Your task to perform on an android device: Do I have any events this weekend? Image 0: 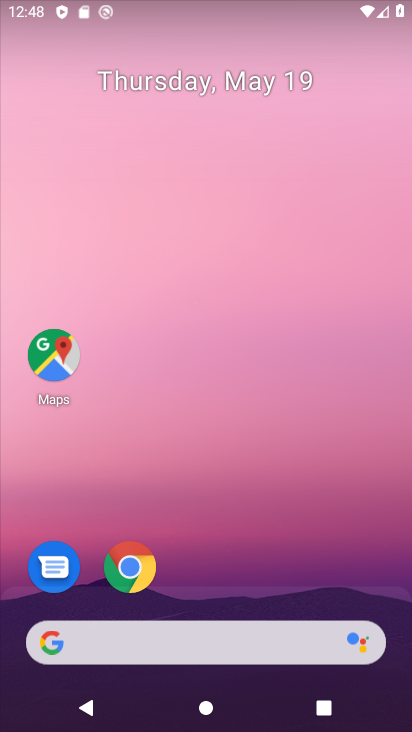
Step 0: press home button
Your task to perform on an android device: Do I have any events this weekend? Image 1: 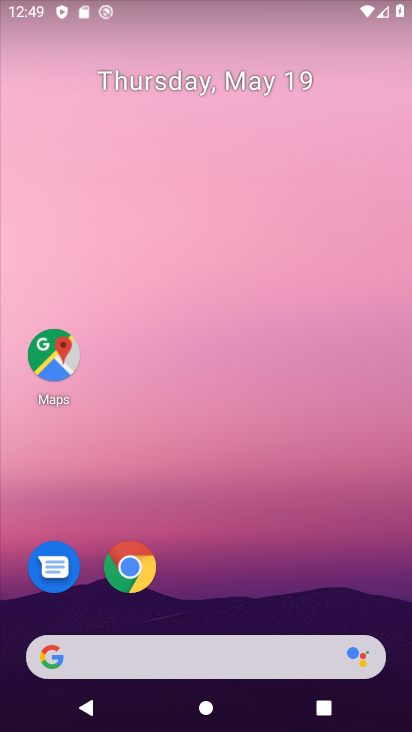
Step 1: drag from (191, 645) to (258, 279)
Your task to perform on an android device: Do I have any events this weekend? Image 2: 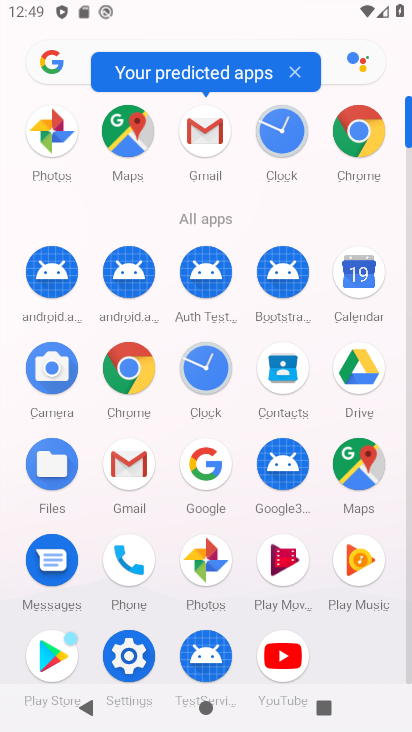
Step 2: click (363, 267)
Your task to perform on an android device: Do I have any events this weekend? Image 3: 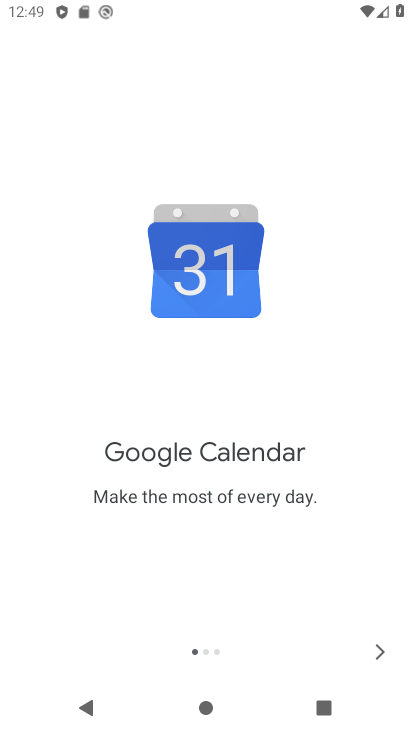
Step 3: click (376, 644)
Your task to perform on an android device: Do I have any events this weekend? Image 4: 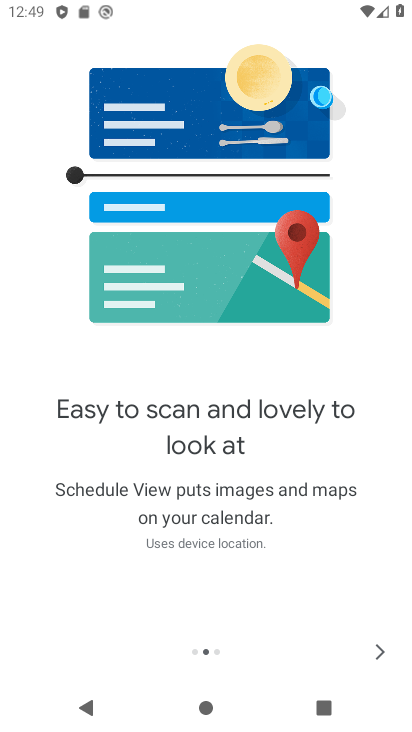
Step 4: click (376, 651)
Your task to perform on an android device: Do I have any events this weekend? Image 5: 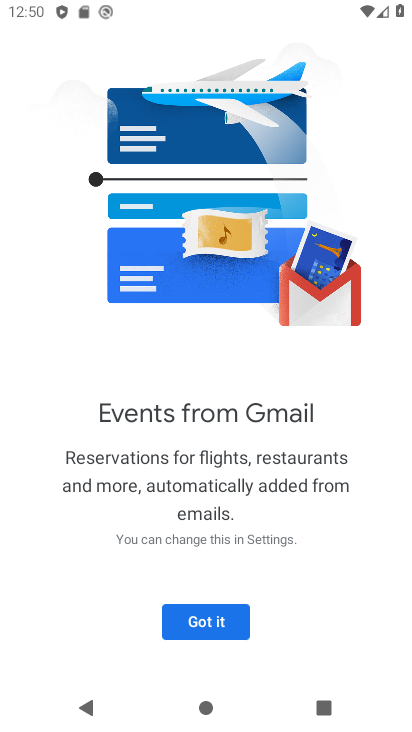
Step 5: click (222, 611)
Your task to perform on an android device: Do I have any events this weekend? Image 6: 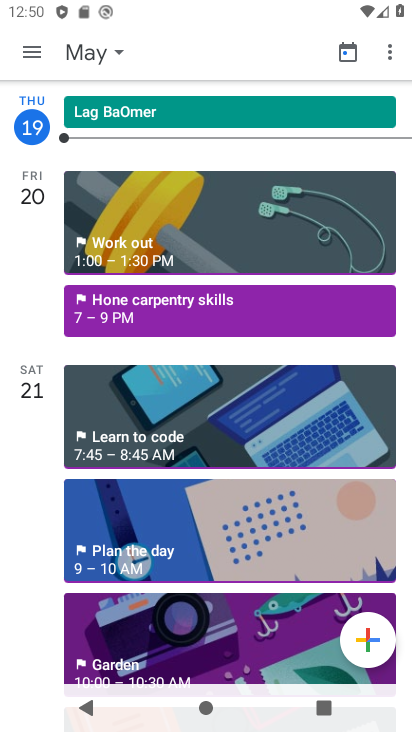
Step 6: click (94, 45)
Your task to perform on an android device: Do I have any events this weekend? Image 7: 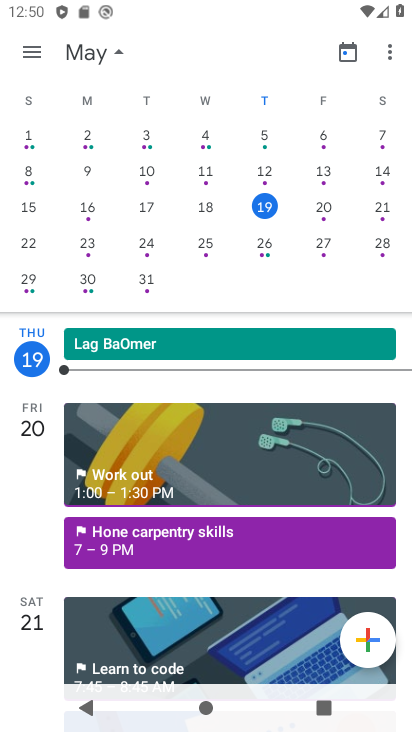
Step 7: click (378, 203)
Your task to perform on an android device: Do I have any events this weekend? Image 8: 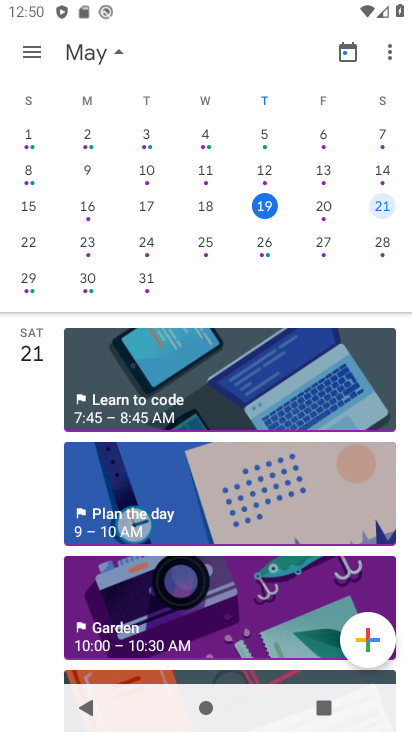
Step 8: click (37, 53)
Your task to perform on an android device: Do I have any events this weekend? Image 9: 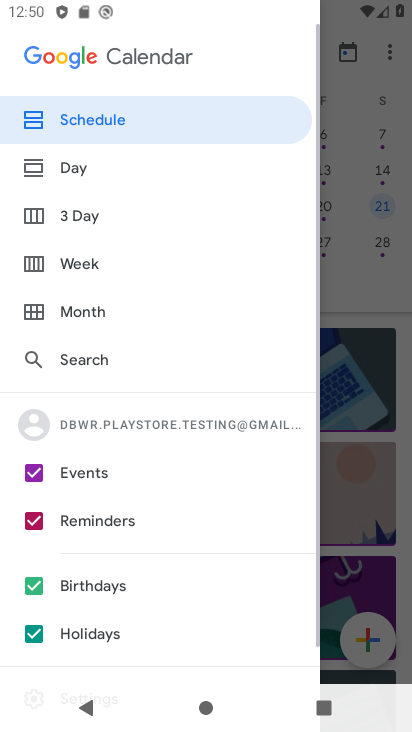
Step 9: click (126, 112)
Your task to perform on an android device: Do I have any events this weekend? Image 10: 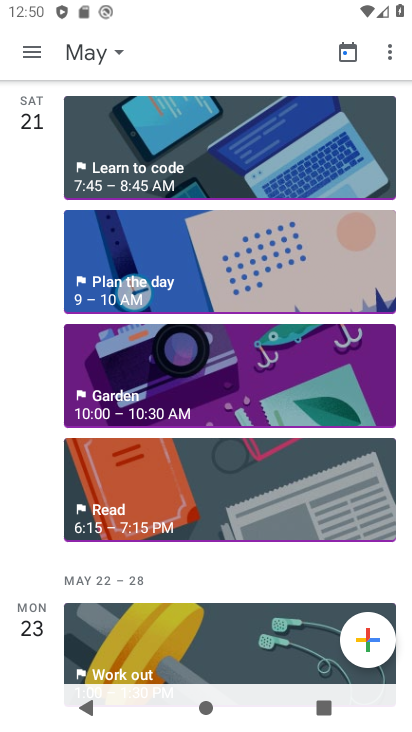
Step 10: click (163, 359)
Your task to perform on an android device: Do I have any events this weekend? Image 11: 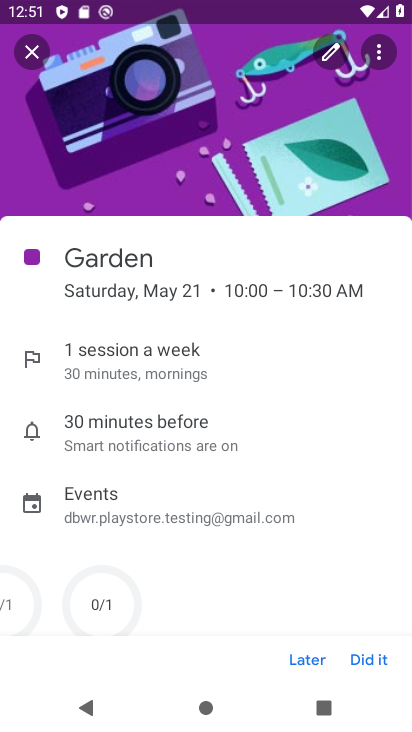
Step 11: task complete